Your task to perform on an android device: Open Google Chrome and click the shortcut for Amazon.com Image 0: 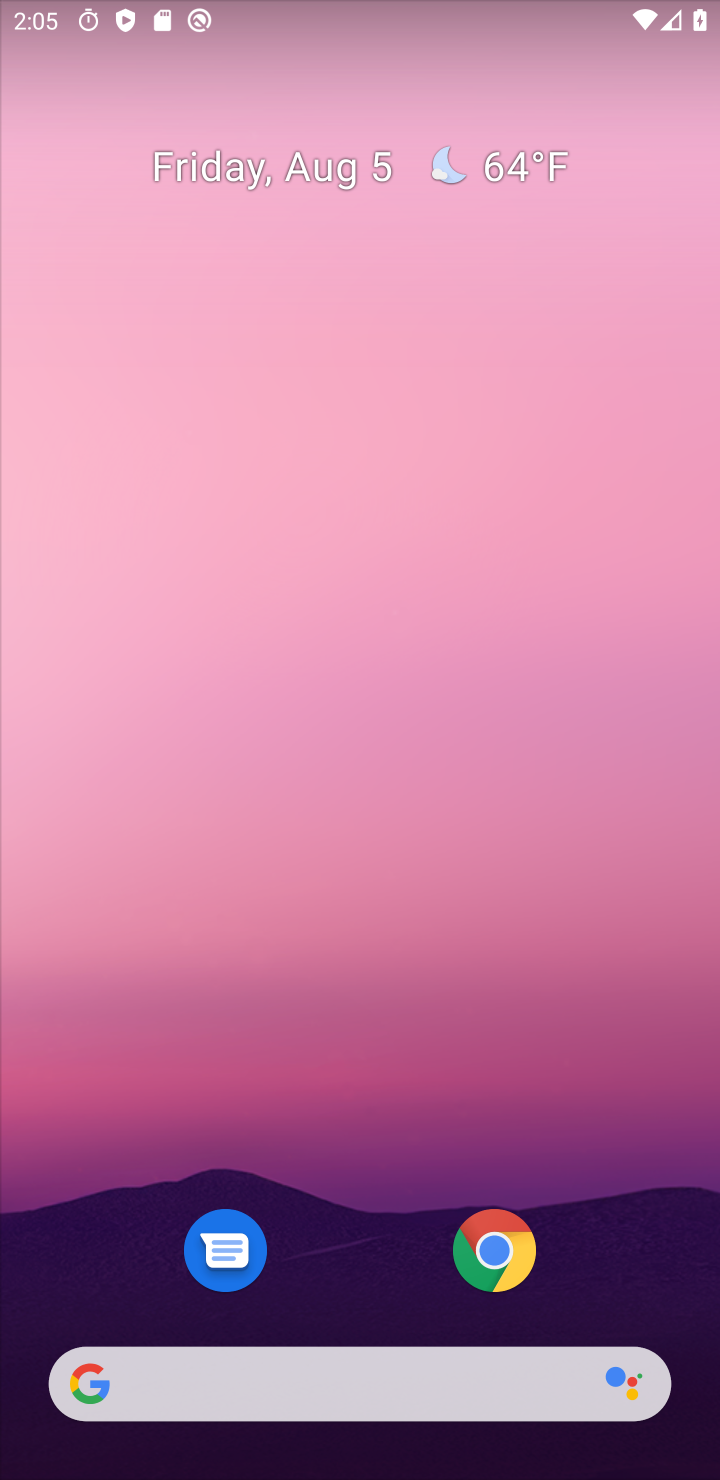
Step 0: drag from (300, 749) to (398, 273)
Your task to perform on an android device: Open Google Chrome and click the shortcut for Amazon.com Image 1: 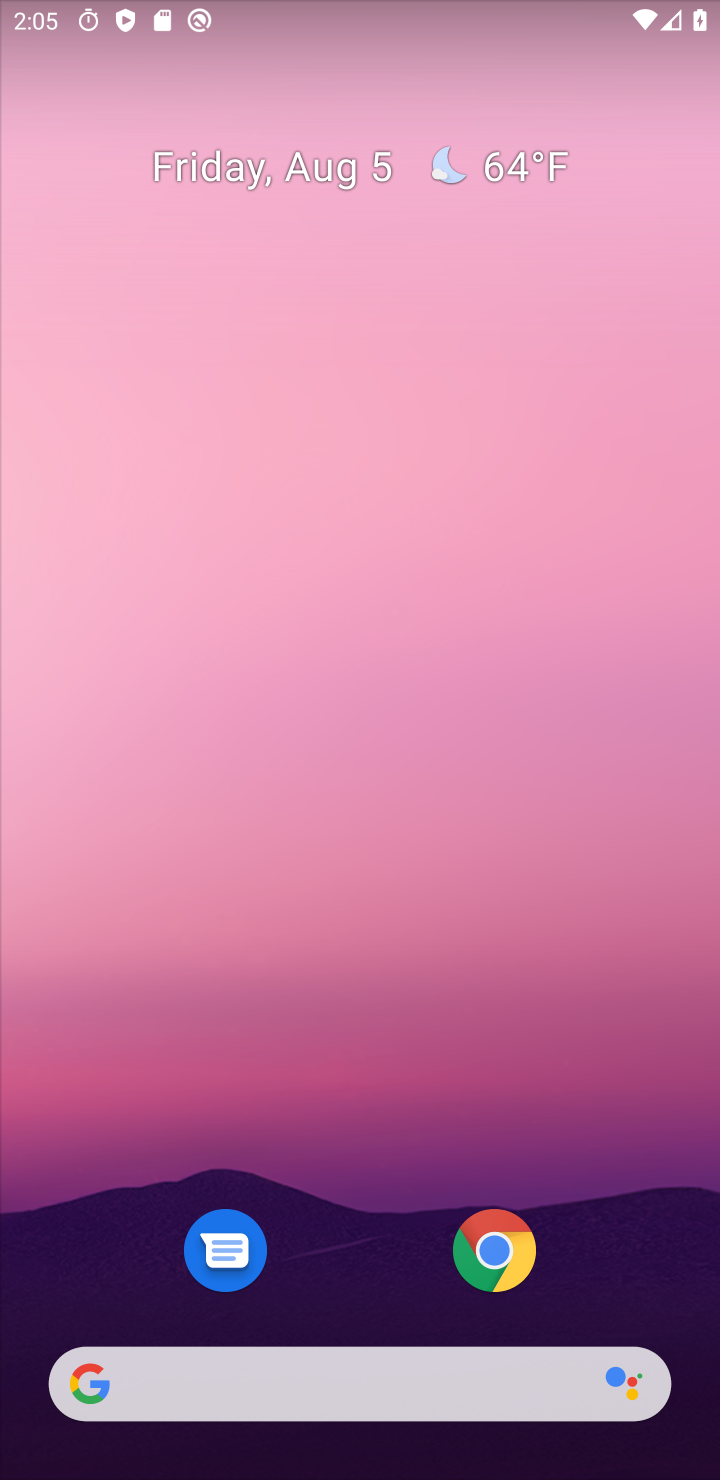
Step 1: drag from (332, 1273) to (473, 110)
Your task to perform on an android device: Open Google Chrome and click the shortcut for Amazon.com Image 2: 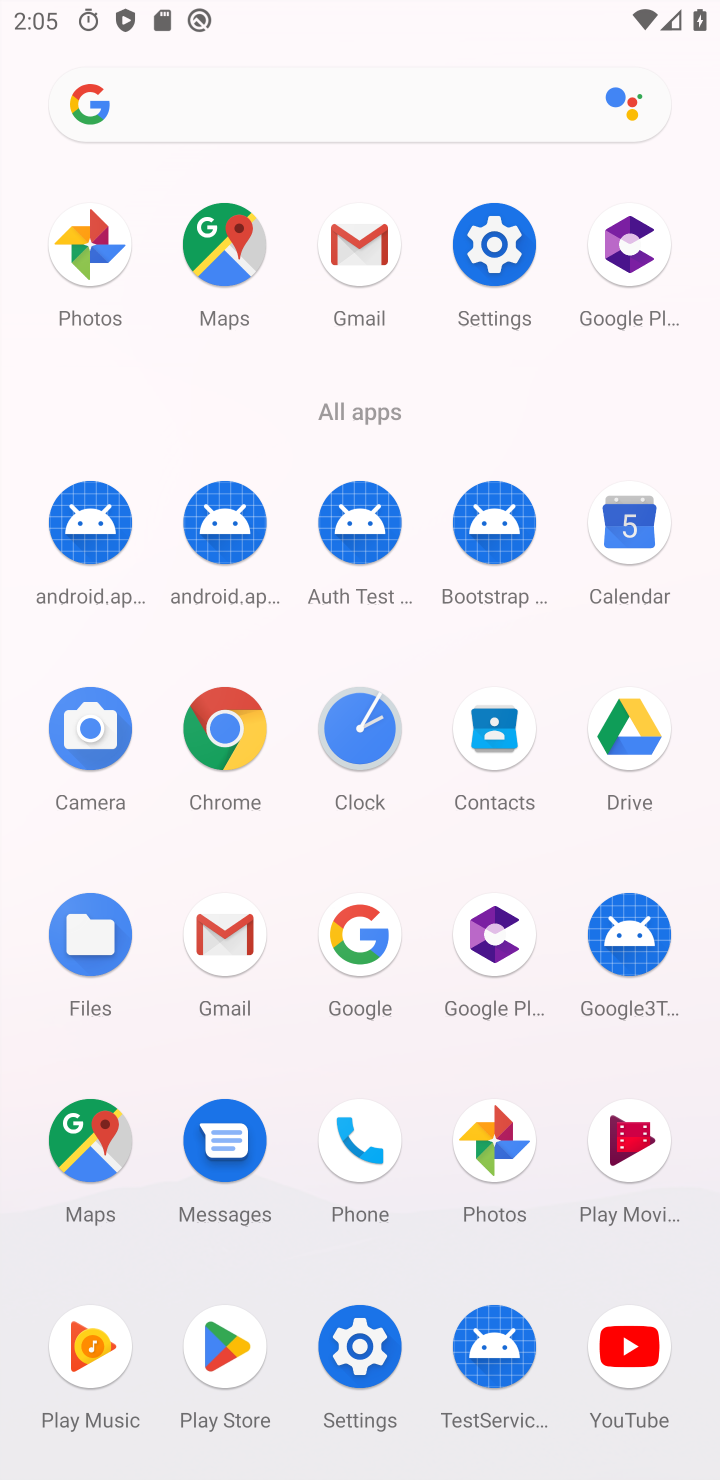
Step 2: click (217, 719)
Your task to perform on an android device: Open Google Chrome and click the shortcut for Amazon.com Image 3: 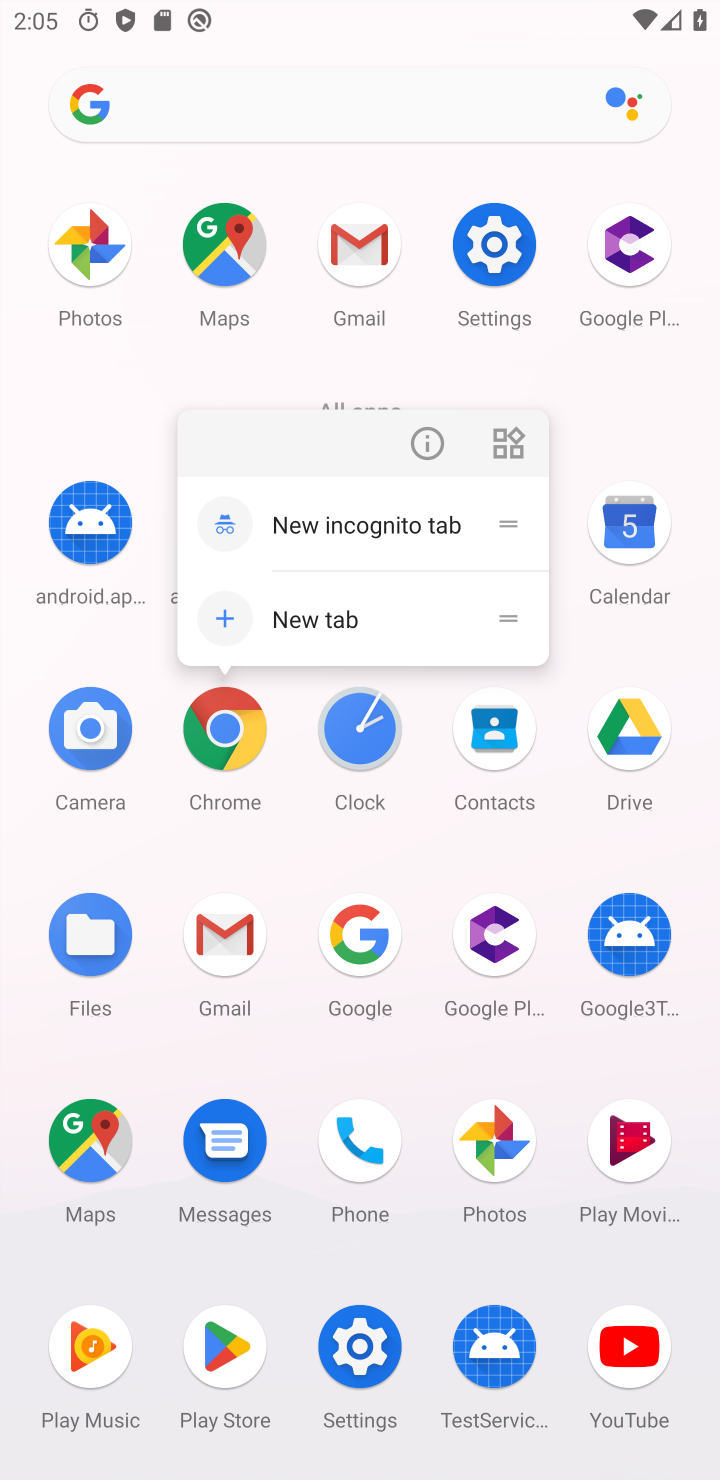
Step 3: click (440, 450)
Your task to perform on an android device: Open Google Chrome and click the shortcut for Amazon.com Image 4: 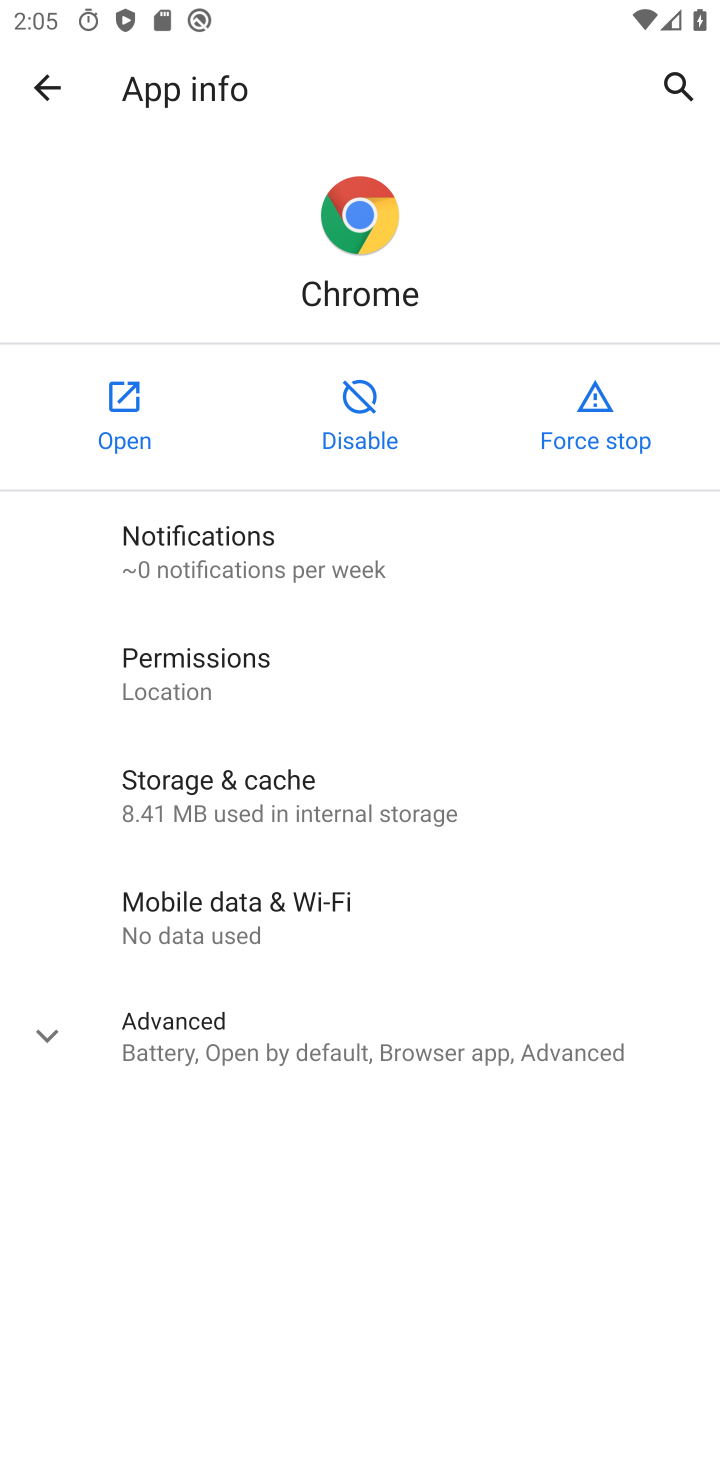
Step 4: click (128, 450)
Your task to perform on an android device: Open Google Chrome and click the shortcut for Amazon.com Image 5: 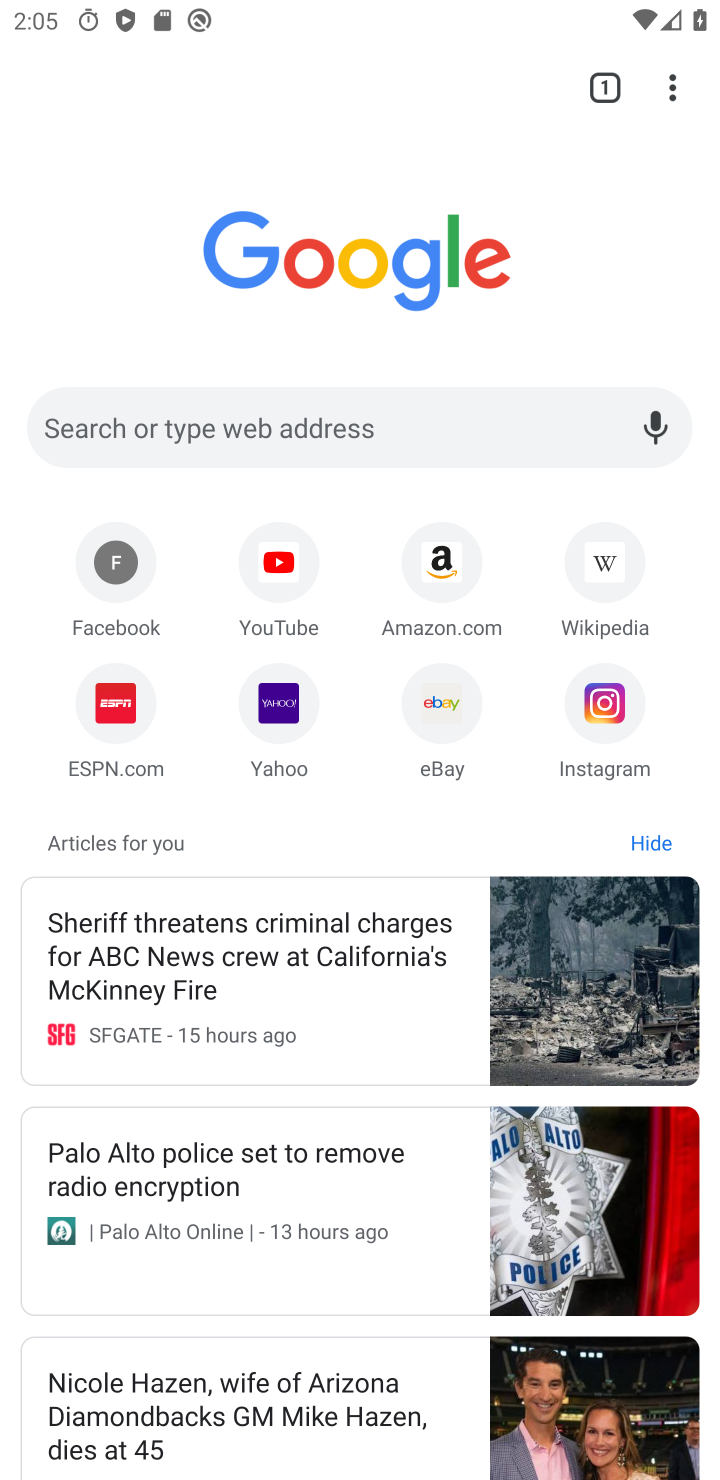
Step 5: drag from (671, 88) to (109, 206)
Your task to perform on an android device: Open Google Chrome and click the shortcut for Amazon.com Image 6: 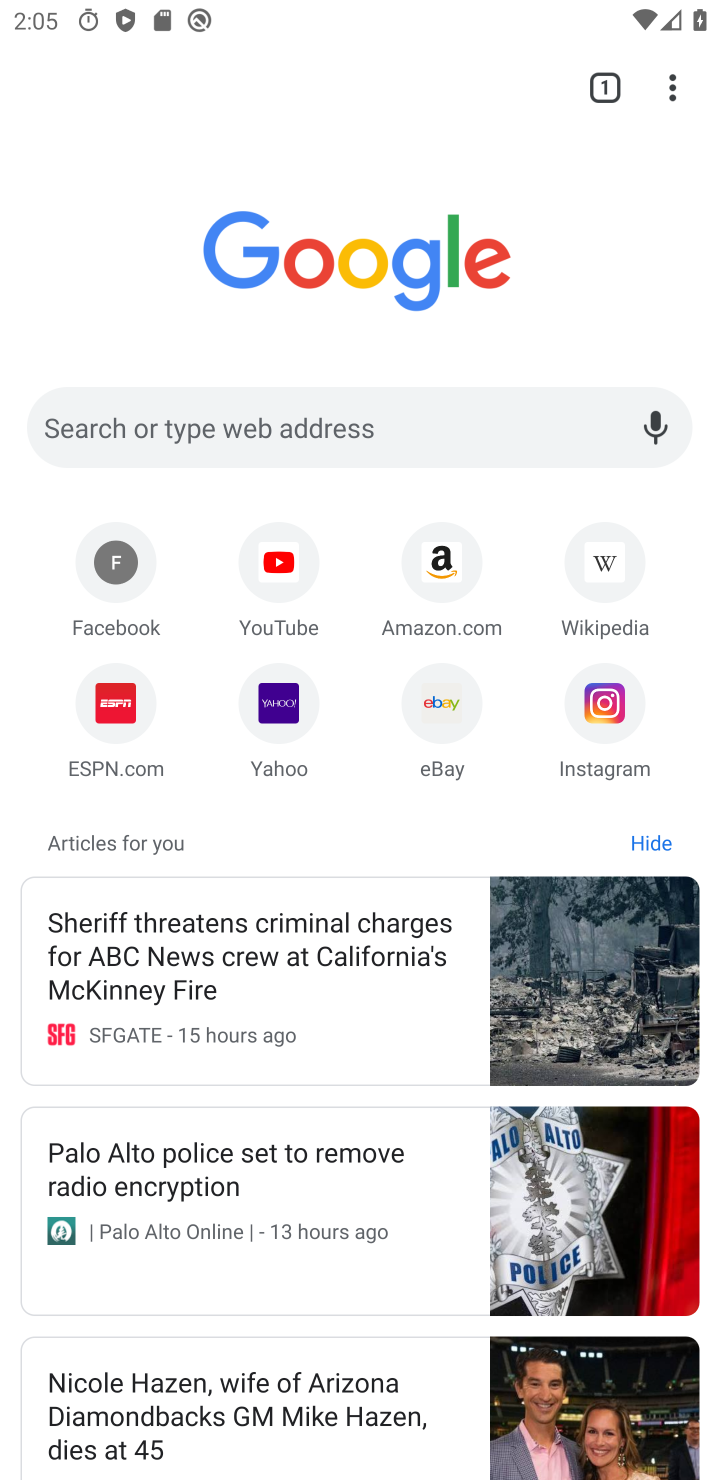
Step 6: click (418, 586)
Your task to perform on an android device: Open Google Chrome and click the shortcut for Amazon.com Image 7: 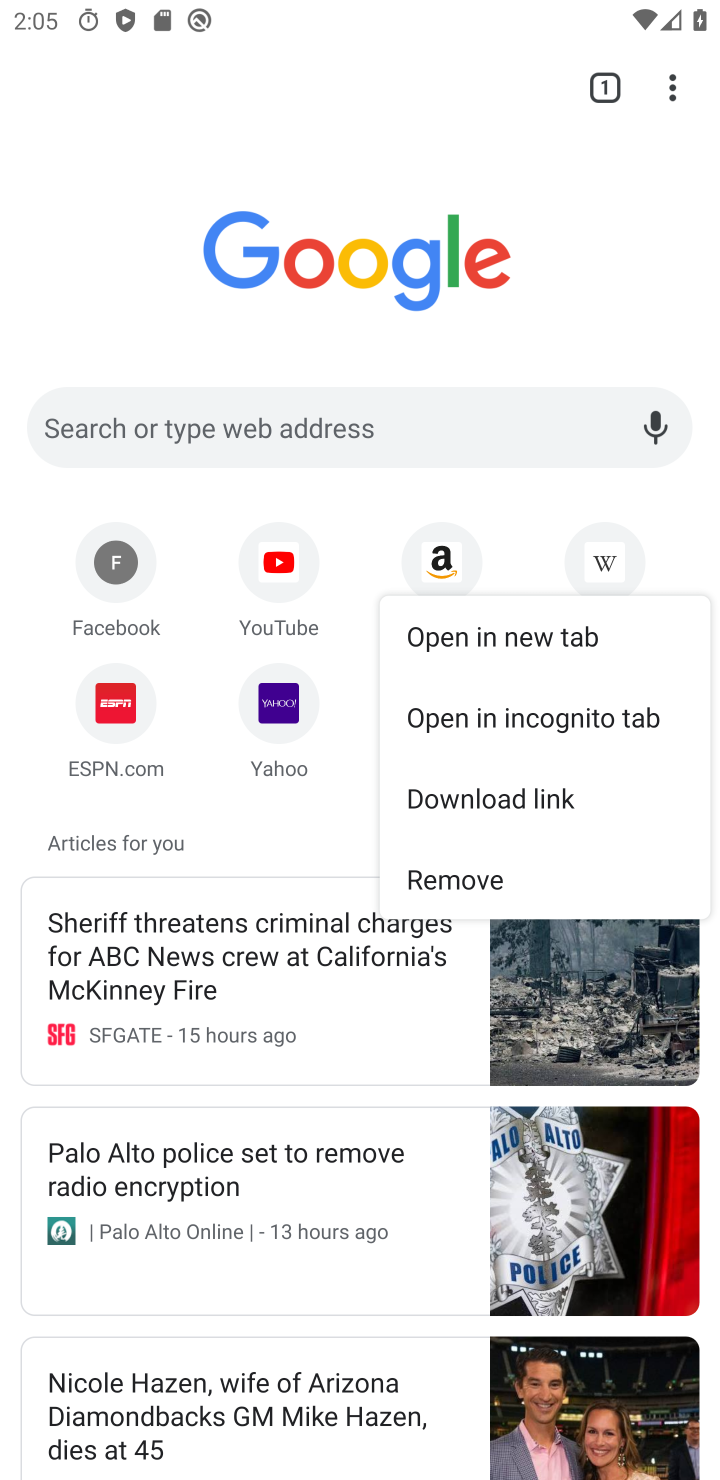
Step 7: click (434, 551)
Your task to perform on an android device: Open Google Chrome and click the shortcut for Amazon.com Image 8: 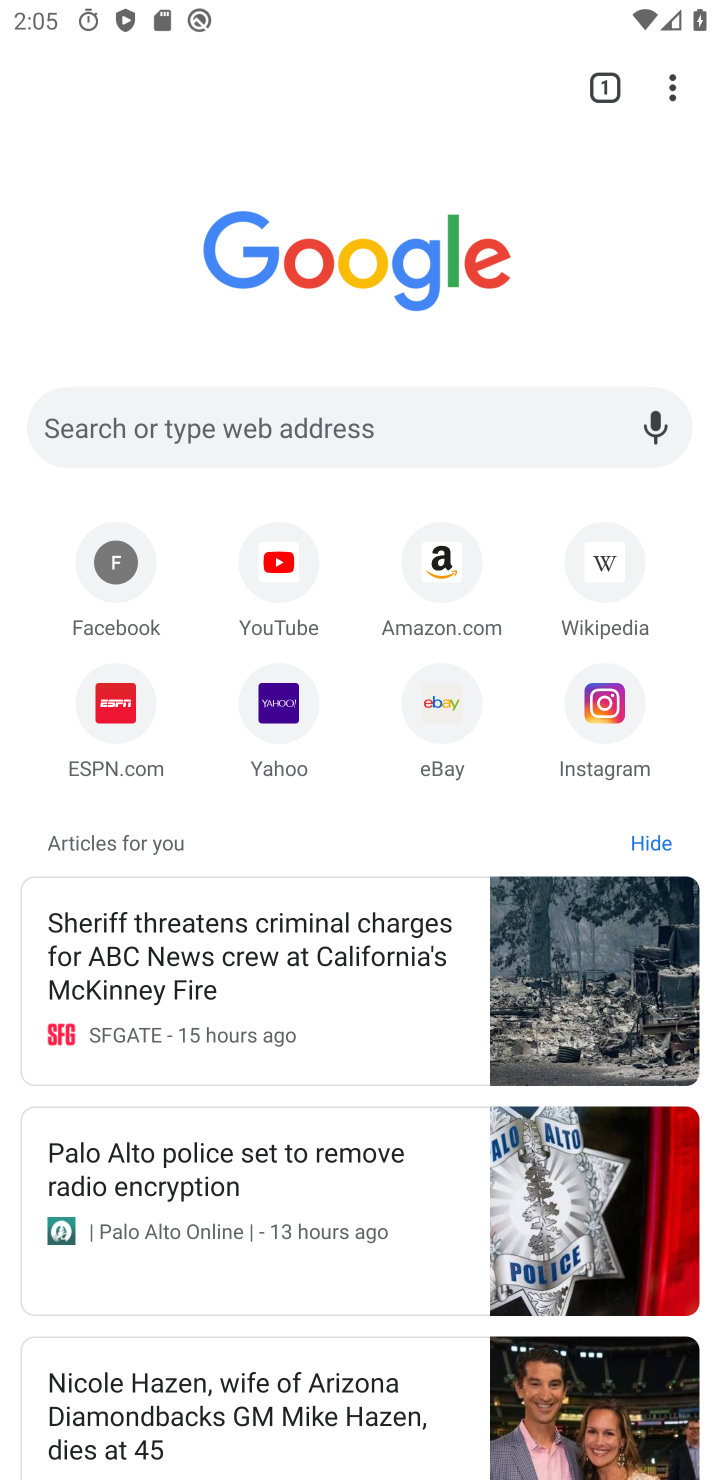
Step 8: click (434, 542)
Your task to perform on an android device: Open Google Chrome and click the shortcut for Amazon.com Image 9: 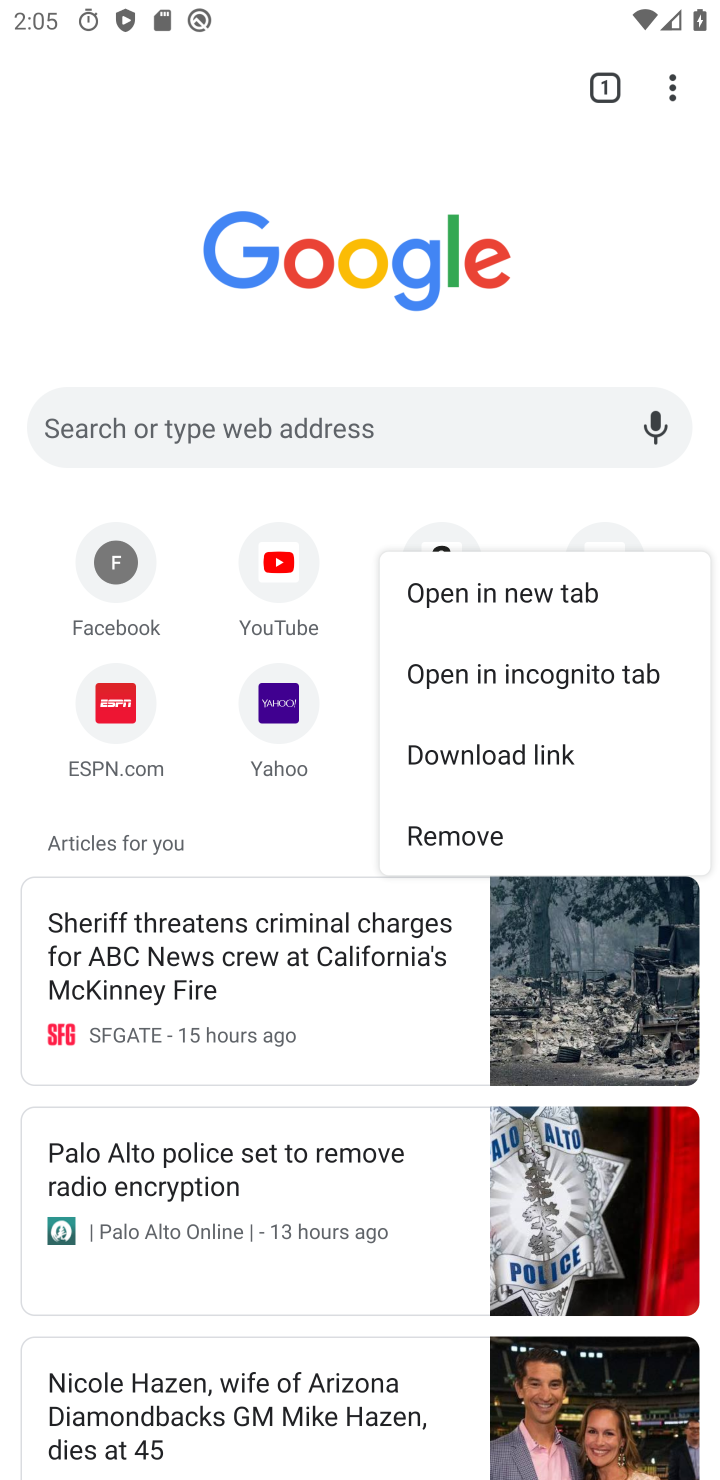
Step 9: click (444, 514)
Your task to perform on an android device: Open Google Chrome and click the shortcut for Amazon.com Image 10: 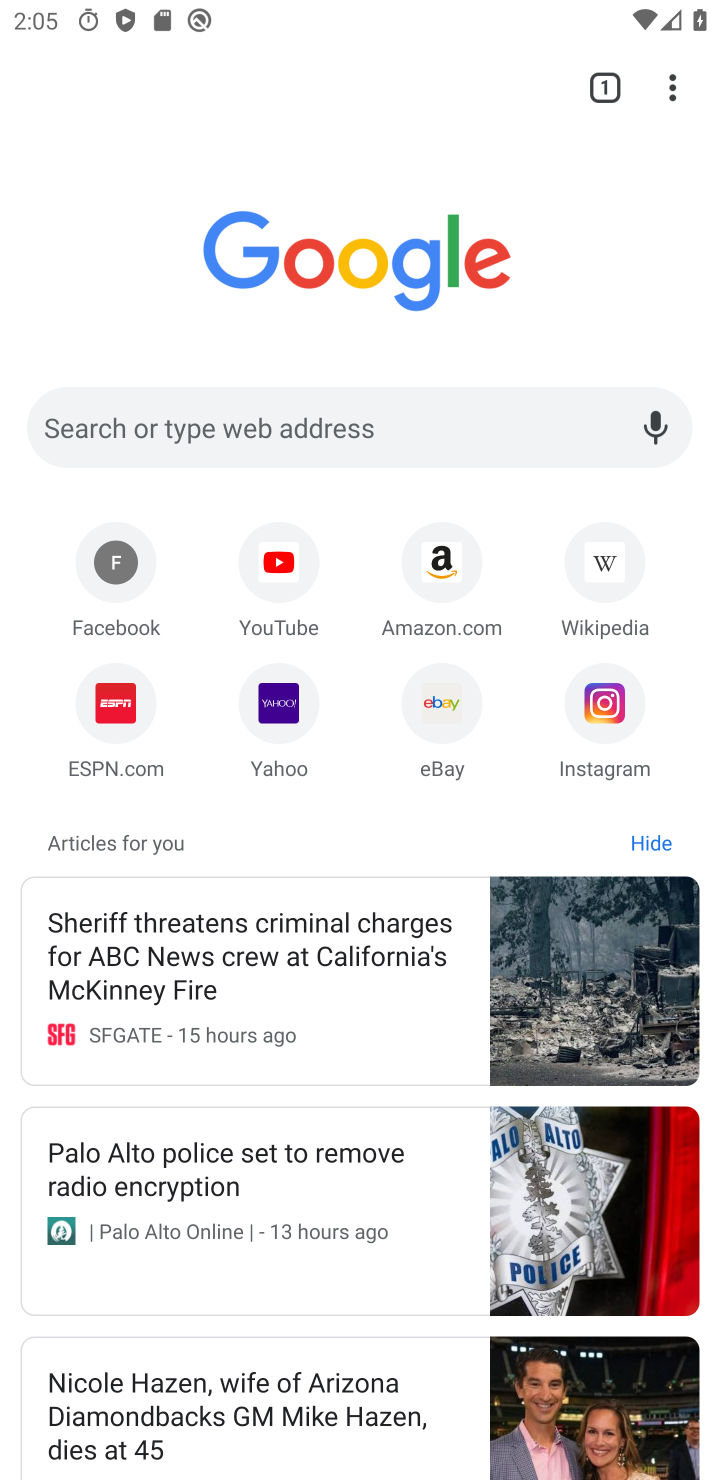
Step 10: click (442, 529)
Your task to perform on an android device: Open Google Chrome and click the shortcut for Amazon.com Image 11: 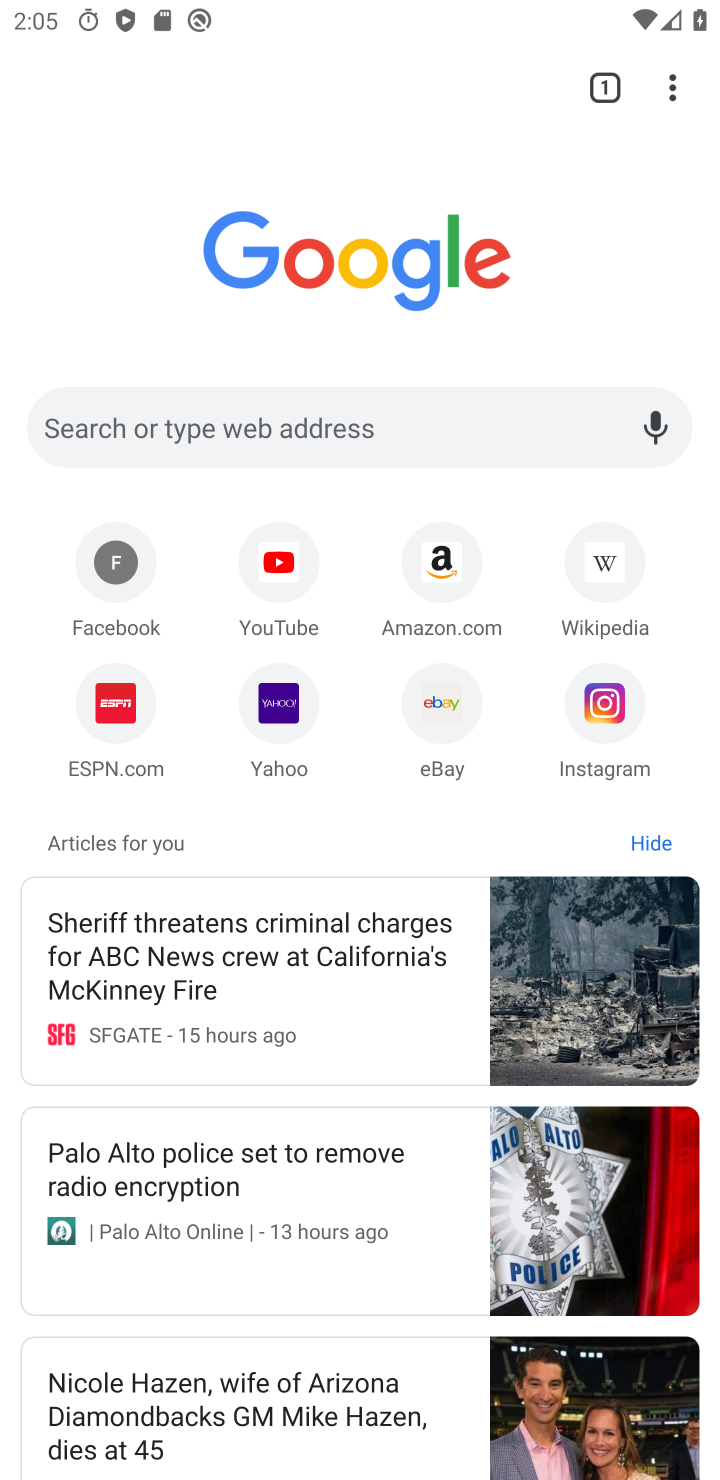
Step 11: click (440, 531)
Your task to perform on an android device: Open Google Chrome and click the shortcut for Amazon.com Image 12: 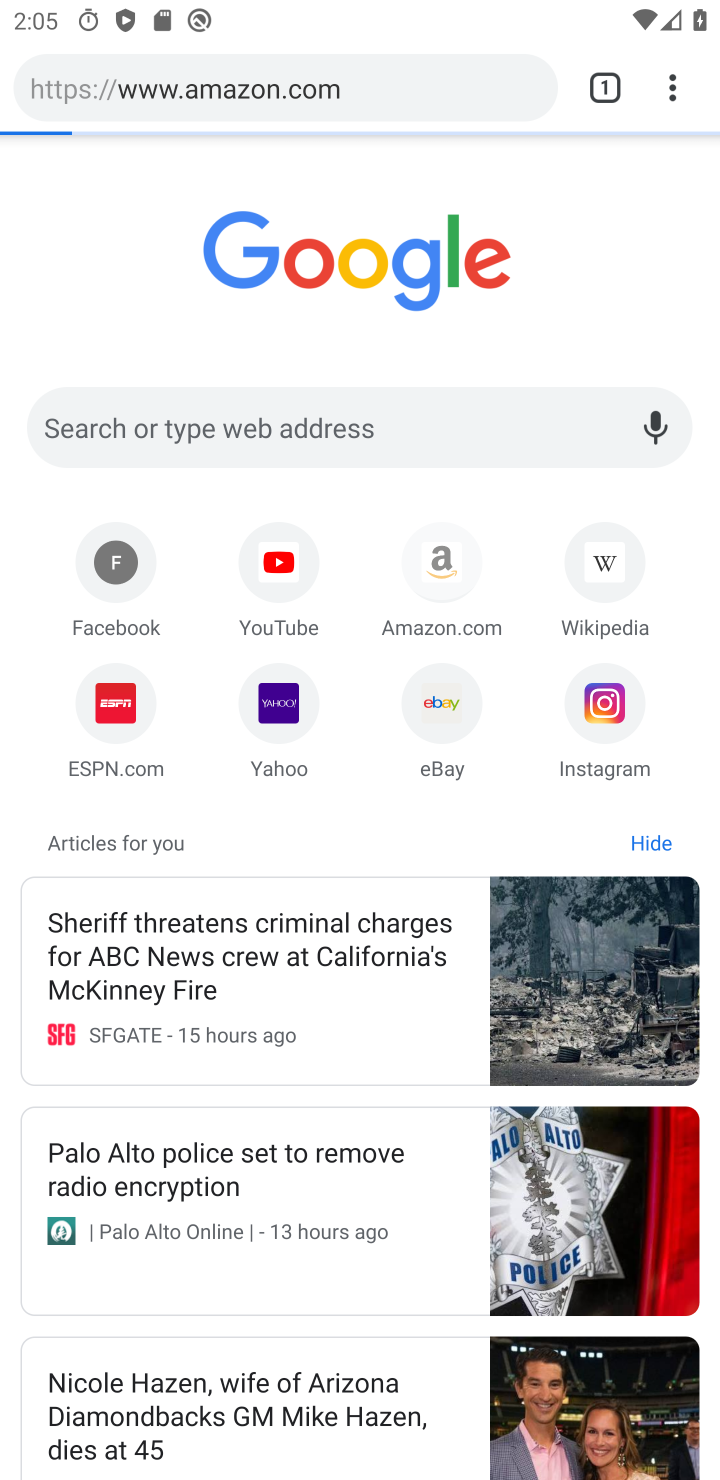
Step 12: click (450, 535)
Your task to perform on an android device: Open Google Chrome and click the shortcut for Amazon.com Image 13: 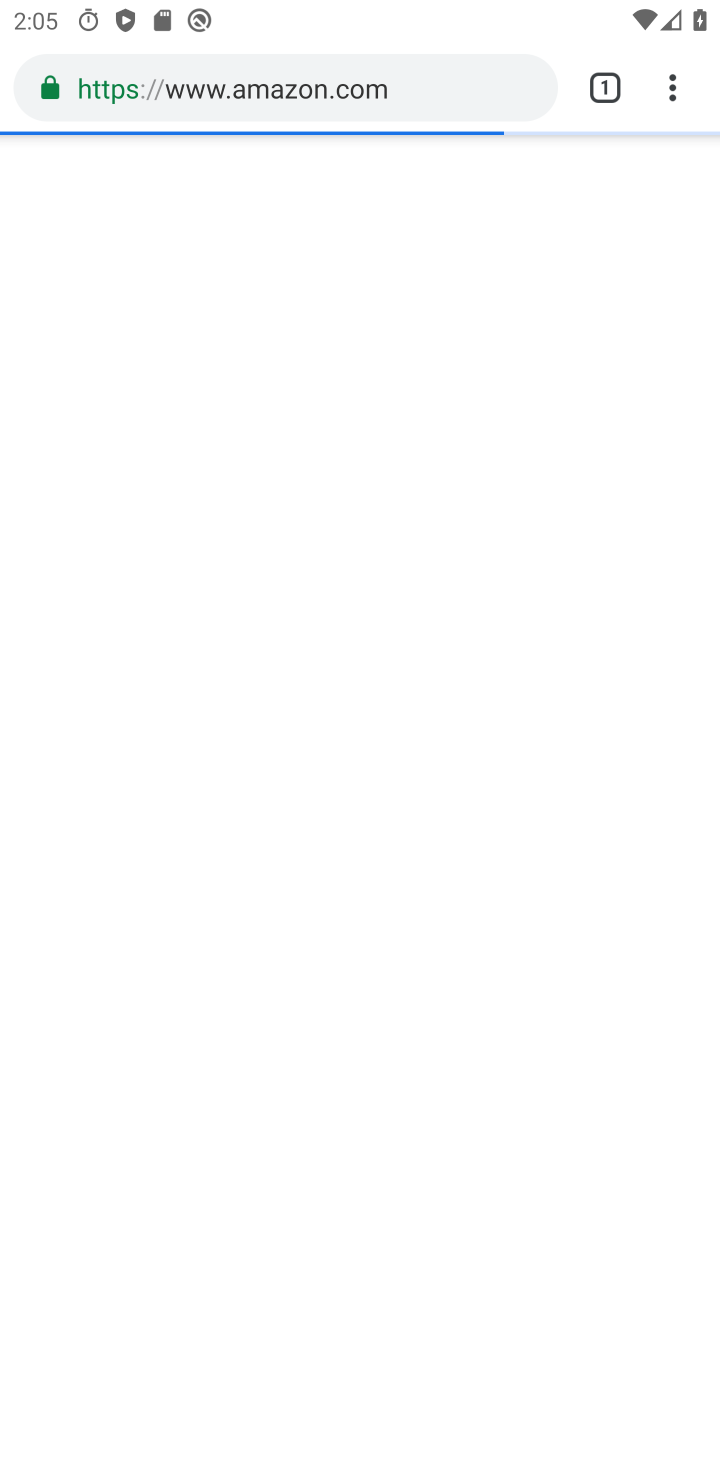
Step 13: task complete